Your task to perform on an android device: change keyboard looks Image 0: 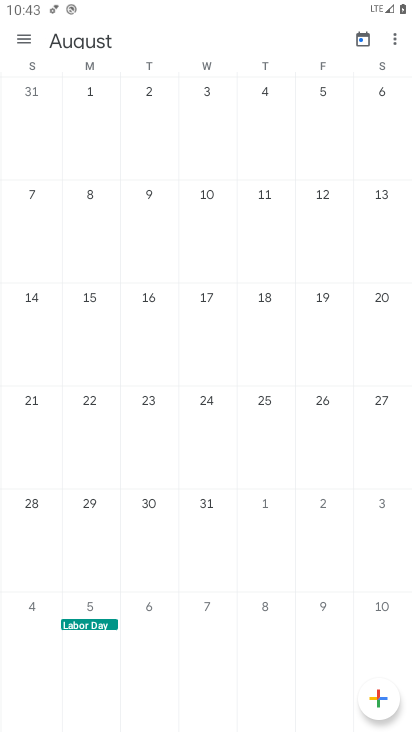
Step 0: press home button
Your task to perform on an android device: change keyboard looks Image 1: 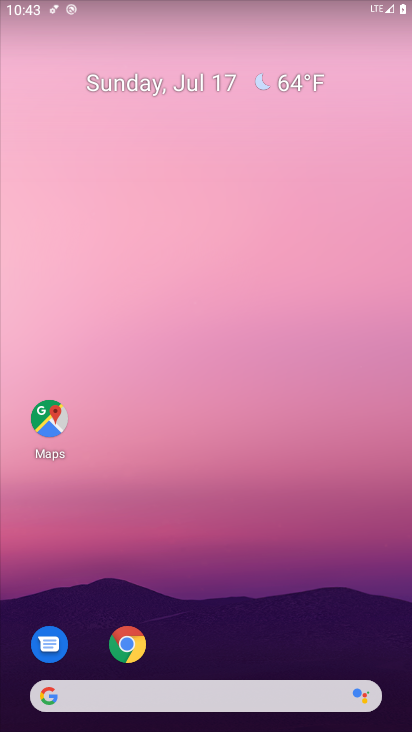
Step 1: drag from (274, 604) to (287, 57)
Your task to perform on an android device: change keyboard looks Image 2: 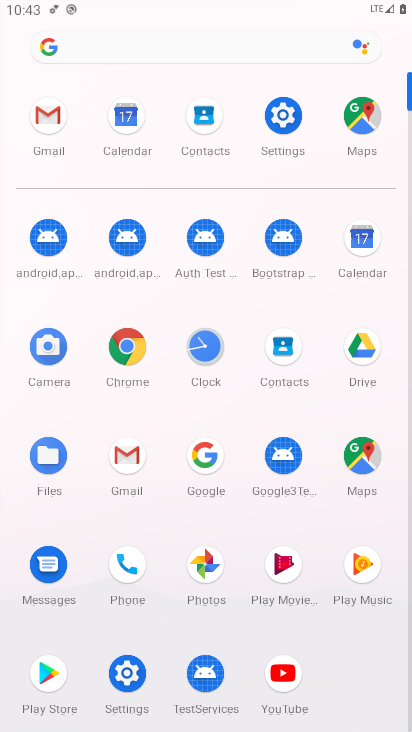
Step 2: click (290, 127)
Your task to perform on an android device: change keyboard looks Image 3: 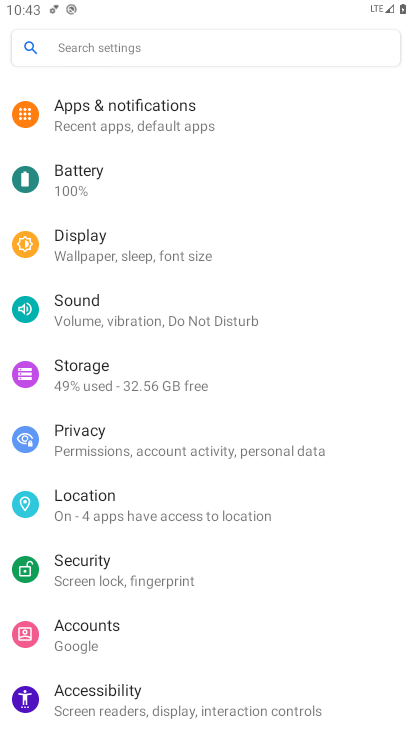
Step 3: drag from (144, 645) to (140, 218)
Your task to perform on an android device: change keyboard looks Image 4: 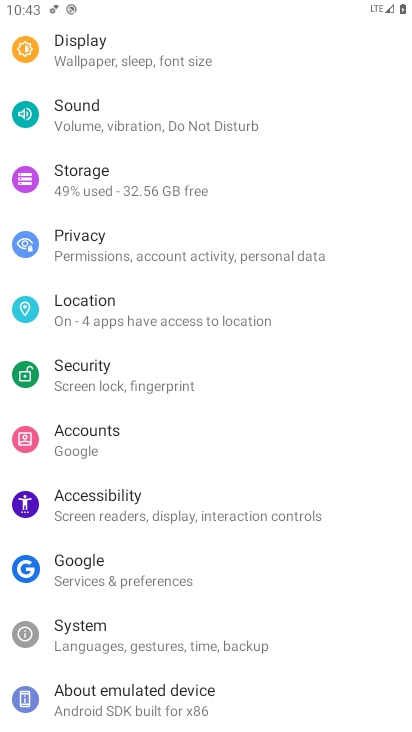
Step 4: click (77, 625)
Your task to perform on an android device: change keyboard looks Image 5: 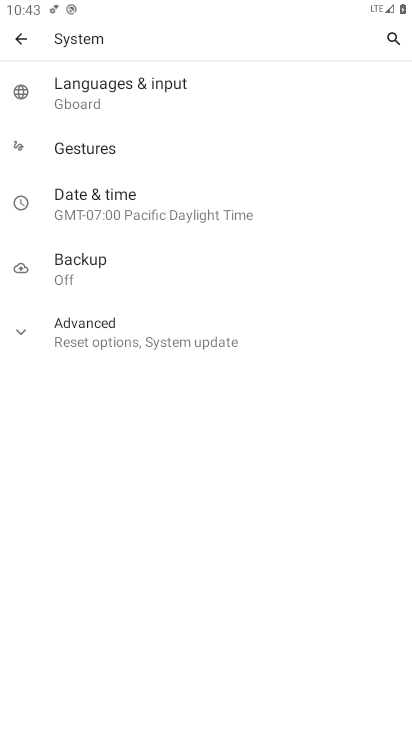
Step 5: click (129, 79)
Your task to perform on an android device: change keyboard looks Image 6: 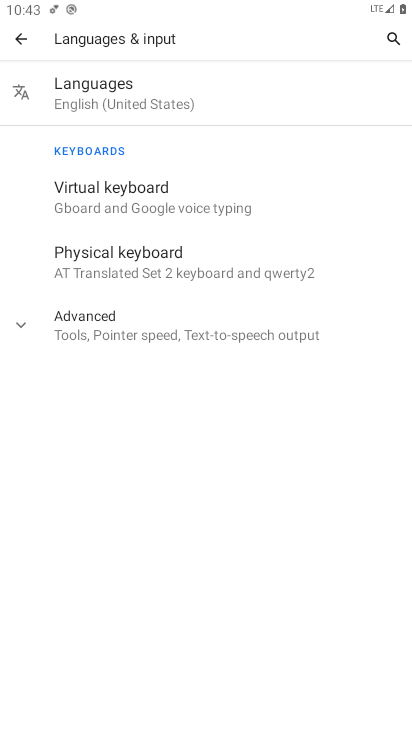
Step 6: click (72, 197)
Your task to perform on an android device: change keyboard looks Image 7: 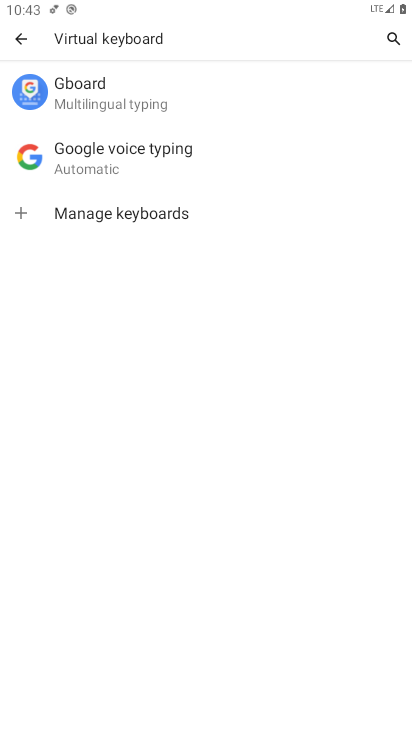
Step 7: click (101, 103)
Your task to perform on an android device: change keyboard looks Image 8: 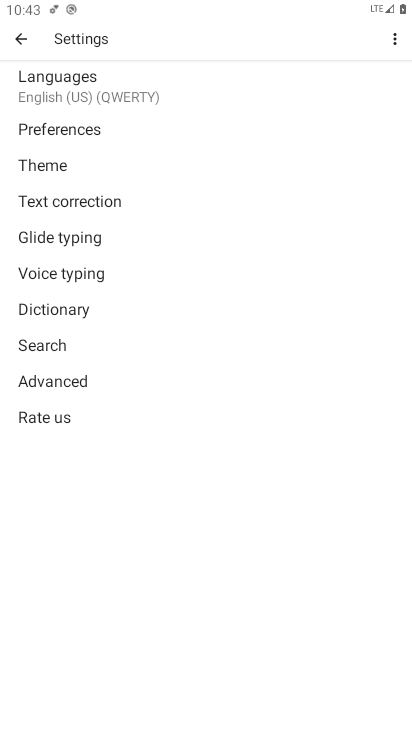
Step 8: click (43, 169)
Your task to perform on an android device: change keyboard looks Image 9: 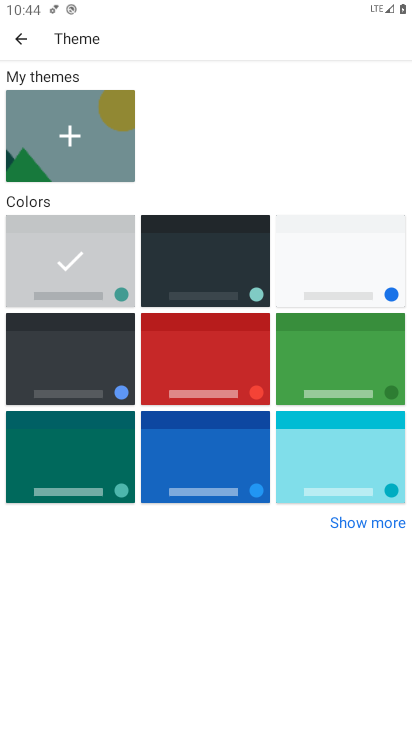
Step 9: click (228, 454)
Your task to perform on an android device: change keyboard looks Image 10: 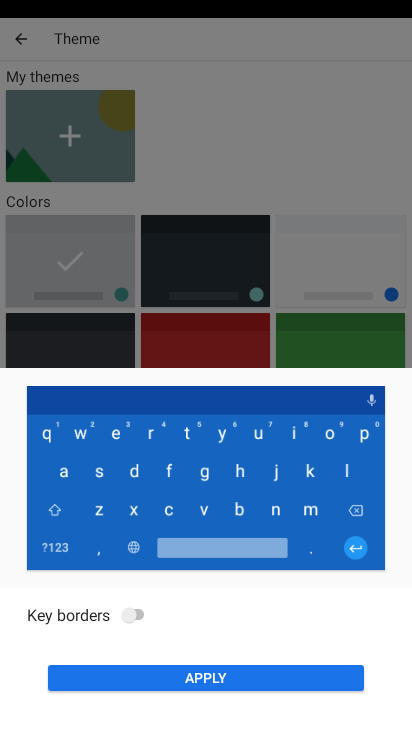
Step 10: click (286, 685)
Your task to perform on an android device: change keyboard looks Image 11: 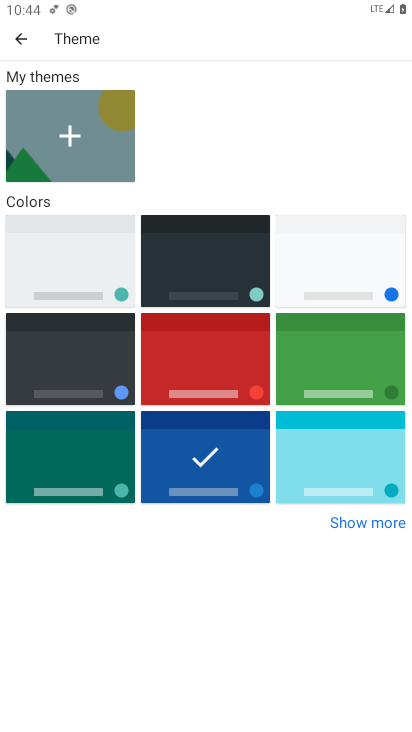
Step 11: task complete